Your task to perform on an android device: toggle improve location accuracy Image 0: 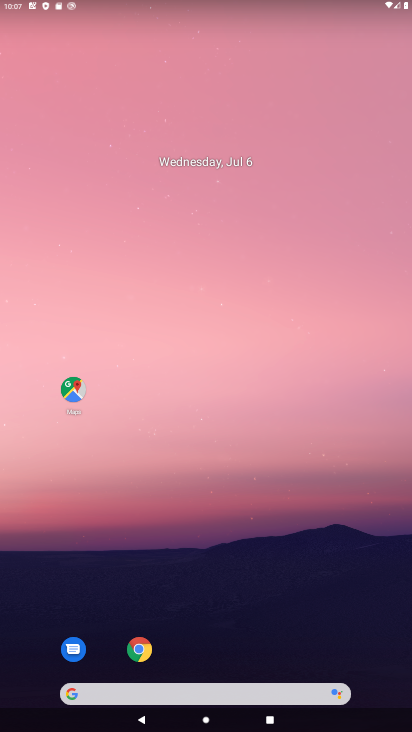
Step 0: drag from (198, 688) to (215, 424)
Your task to perform on an android device: toggle improve location accuracy Image 1: 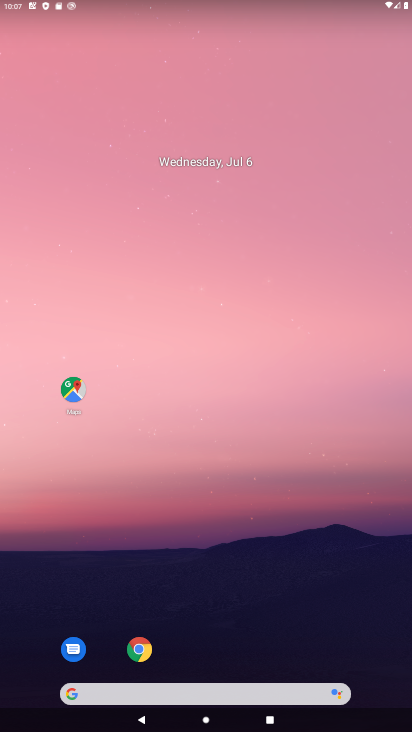
Step 1: drag from (208, 691) to (260, 206)
Your task to perform on an android device: toggle improve location accuracy Image 2: 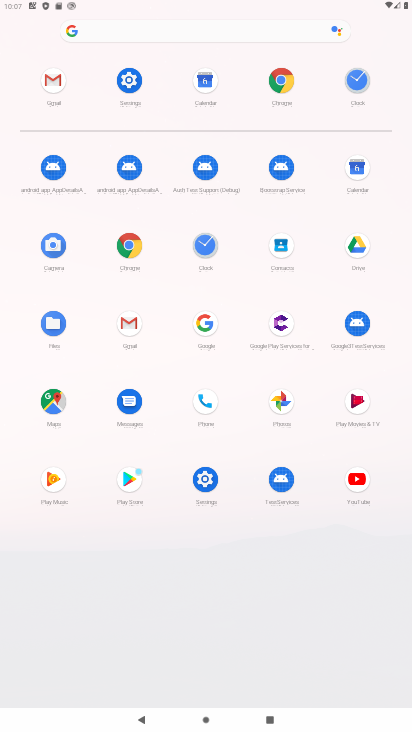
Step 2: click (129, 85)
Your task to perform on an android device: toggle improve location accuracy Image 3: 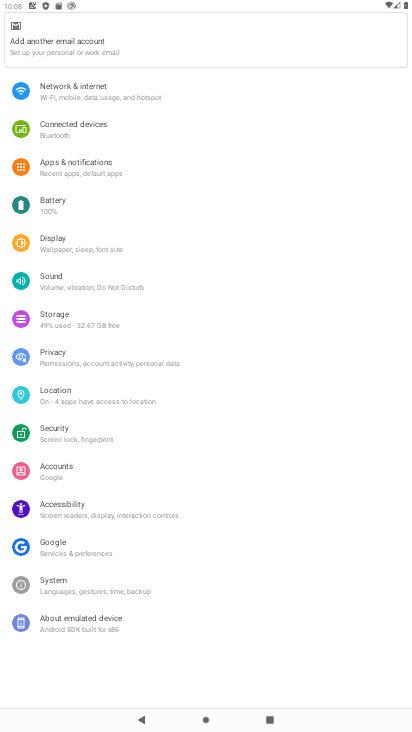
Step 3: click (73, 397)
Your task to perform on an android device: toggle improve location accuracy Image 4: 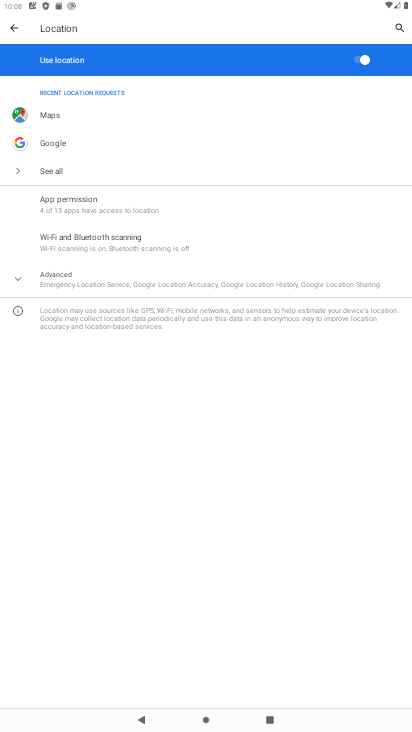
Step 4: click (62, 289)
Your task to perform on an android device: toggle improve location accuracy Image 5: 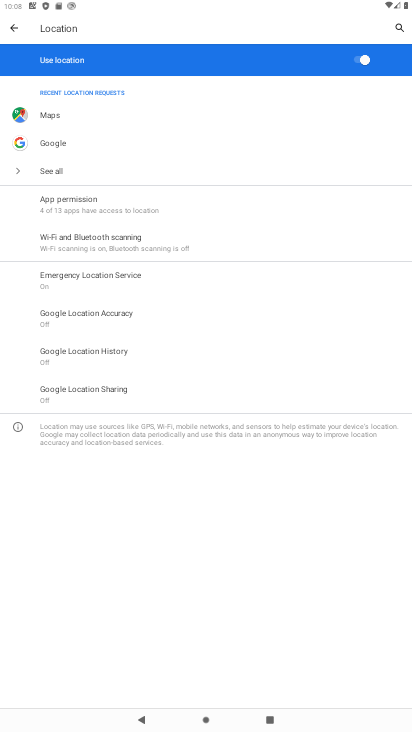
Step 5: click (57, 320)
Your task to perform on an android device: toggle improve location accuracy Image 6: 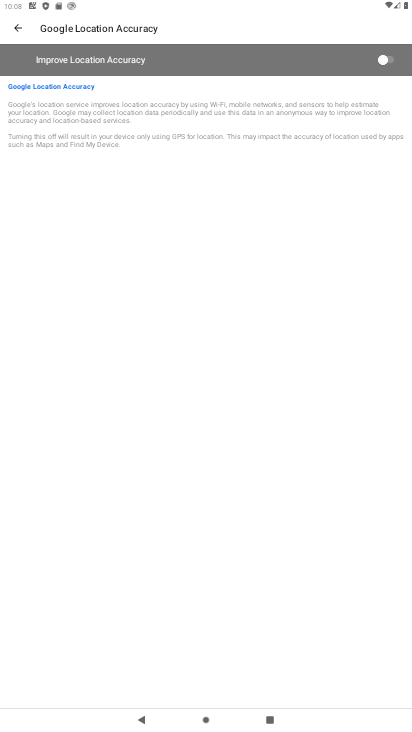
Step 6: click (391, 68)
Your task to perform on an android device: toggle improve location accuracy Image 7: 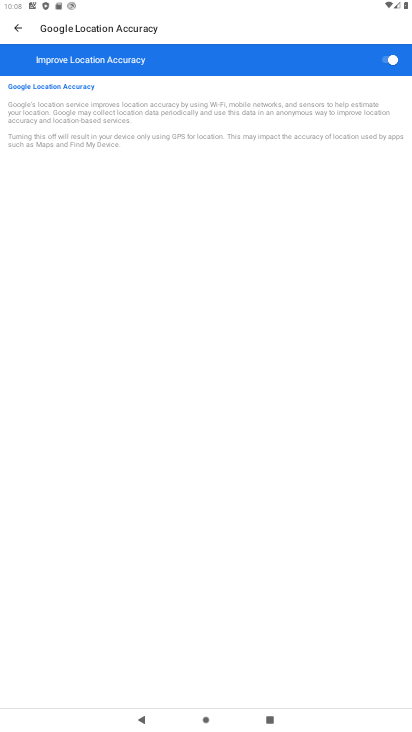
Step 7: task complete